Your task to perform on an android device: Go to Reddit.com Image 0: 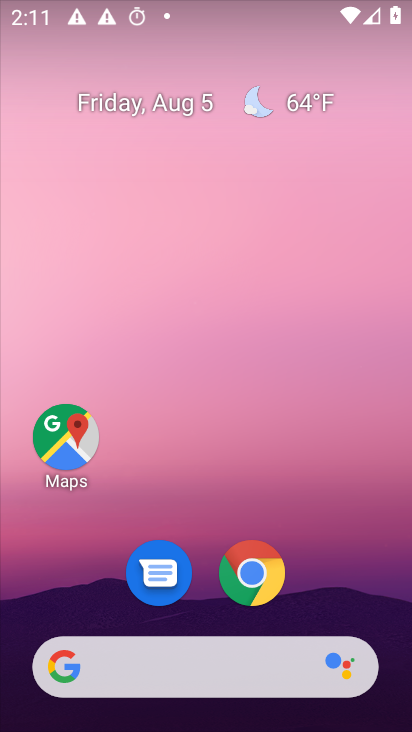
Step 0: press home button
Your task to perform on an android device: Go to Reddit.com Image 1: 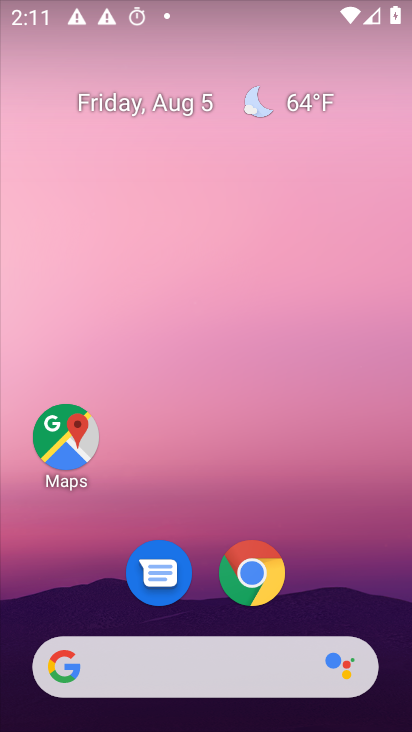
Step 1: drag from (340, 578) to (318, 224)
Your task to perform on an android device: Go to Reddit.com Image 2: 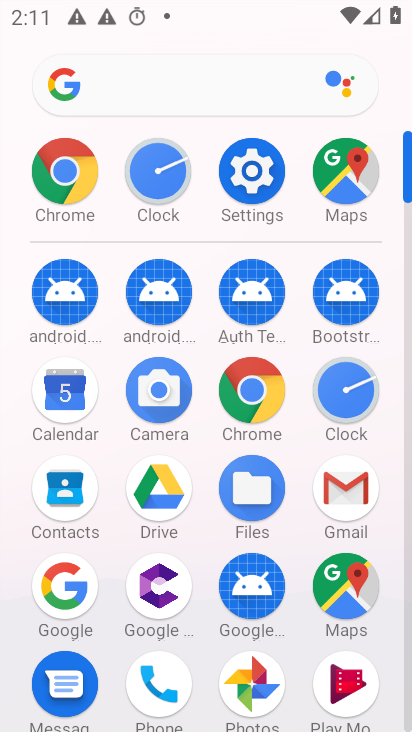
Step 2: click (256, 389)
Your task to perform on an android device: Go to Reddit.com Image 3: 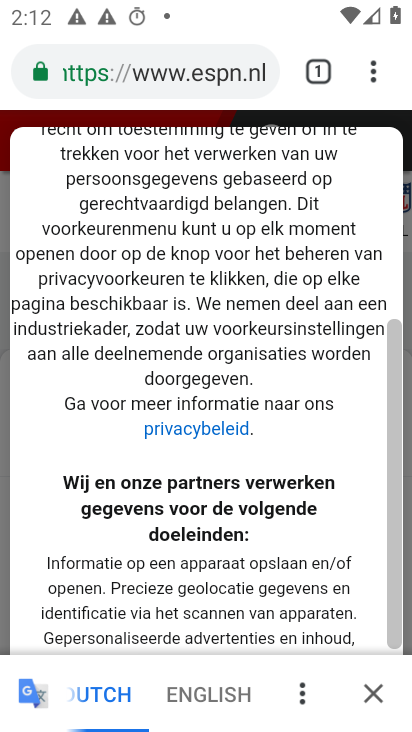
Step 3: click (220, 68)
Your task to perform on an android device: Go to Reddit.com Image 4: 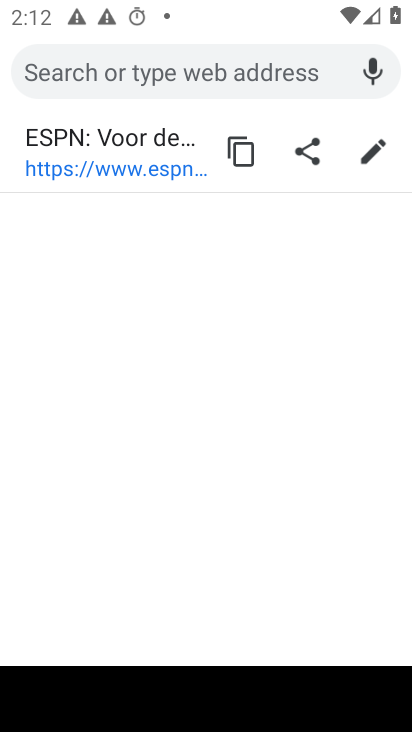
Step 4: type "reddit.com"
Your task to perform on an android device: Go to Reddit.com Image 5: 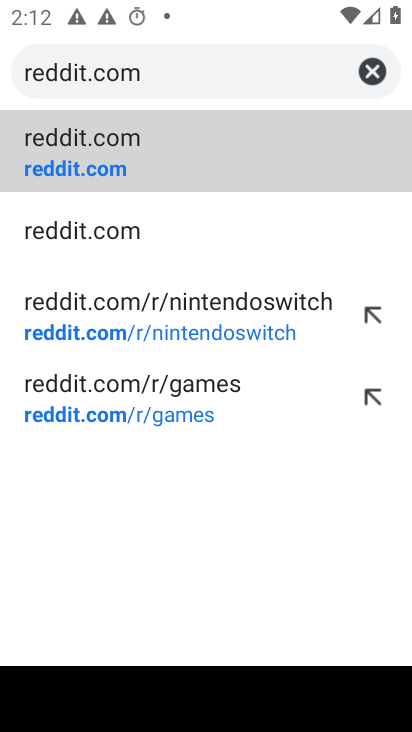
Step 5: click (218, 162)
Your task to perform on an android device: Go to Reddit.com Image 6: 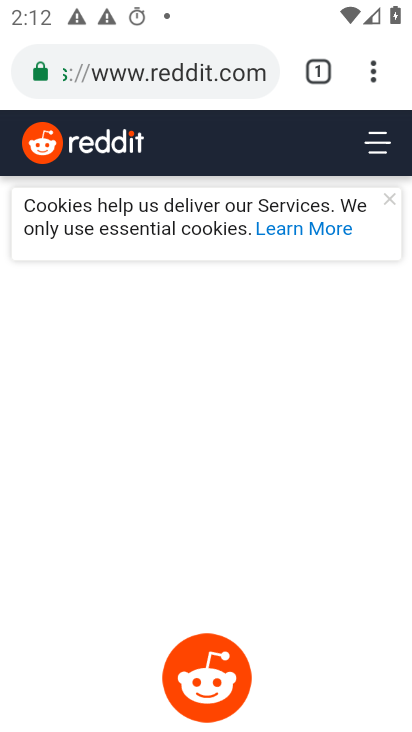
Step 6: task complete